Your task to perform on an android device: Go to battery settings Image 0: 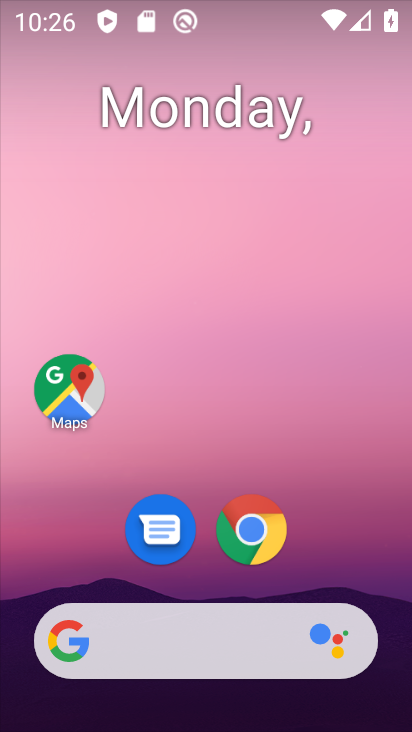
Step 0: drag from (243, 726) to (233, 12)
Your task to perform on an android device: Go to battery settings Image 1: 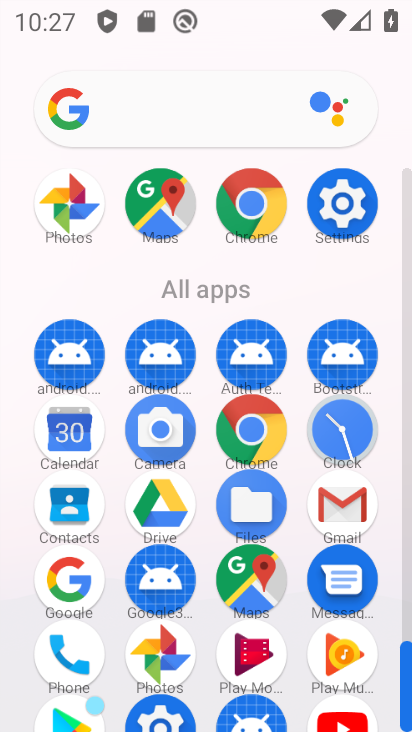
Step 1: click (342, 203)
Your task to perform on an android device: Go to battery settings Image 2: 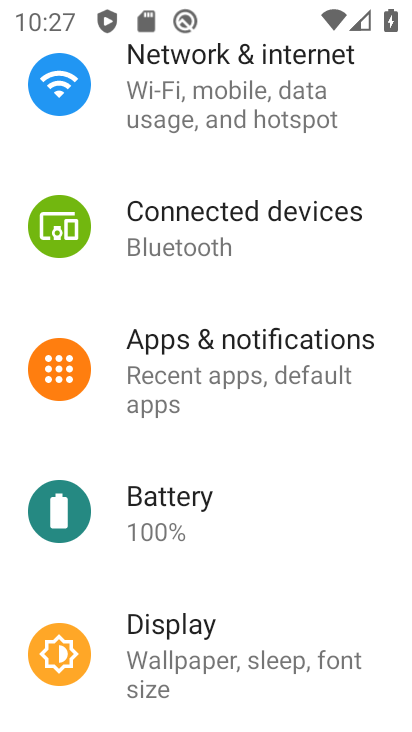
Step 2: click (161, 516)
Your task to perform on an android device: Go to battery settings Image 3: 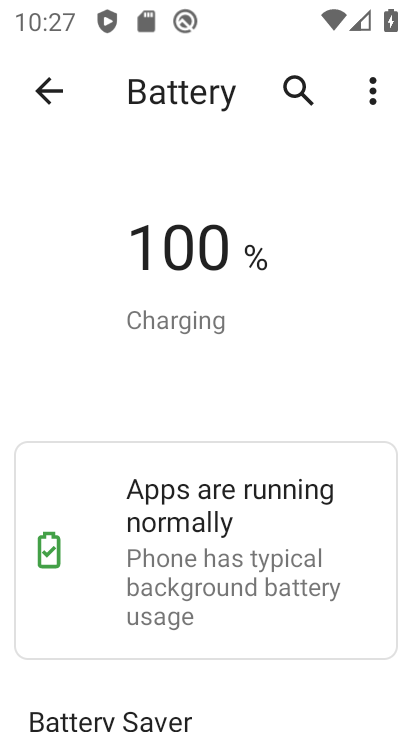
Step 3: task complete